Your task to perform on an android device: Open Google Chrome and click the shortcut for Amazon.com Image 0: 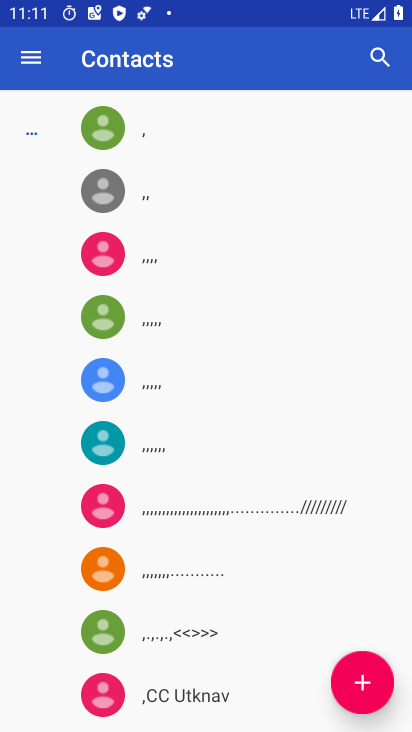
Step 0: press home button
Your task to perform on an android device: Open Google Chrome and click the shortcut for Amazon.com Image 1: 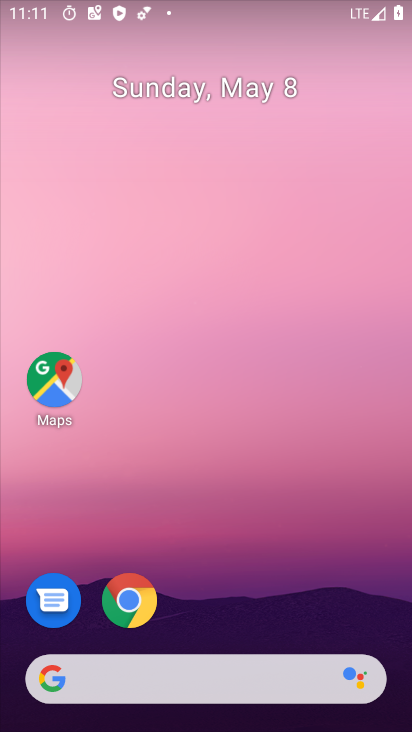
Step 1: click (114, 595)
Your task to perform on an android device: Open Google Chrome and click the shortcut for Amazon.com Image 2: 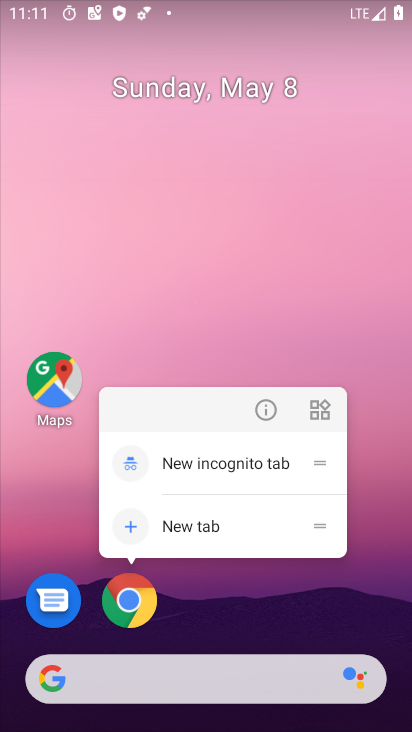
Step 2: click (261, 418)
Your task to perform on an android device: Open Google Chrome and click the shortcut for Amazon.com Image 3: 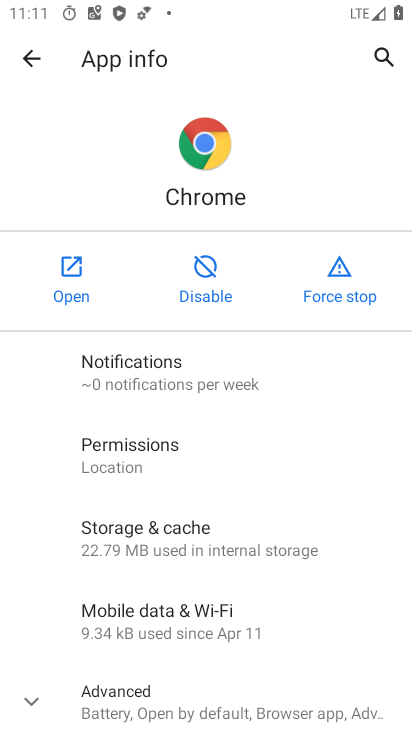
Step 3: click (72, 277)
Your task to perform on an android device: Open Google Chrome and click the shortcut for Amazon.com Image 4: 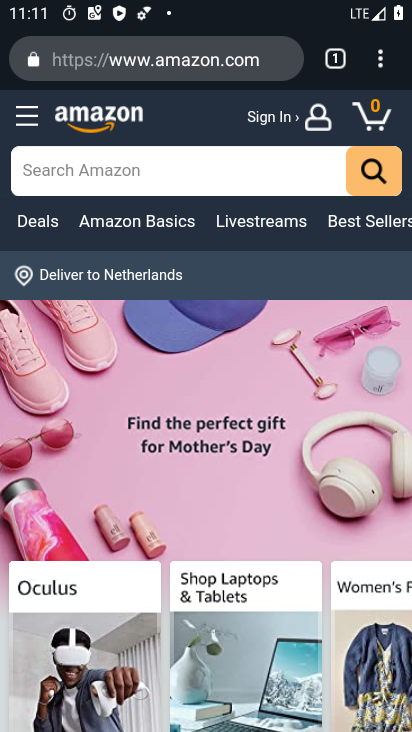
Step 4: task complete